Your task to perform on an android device: turn off location Image 0: 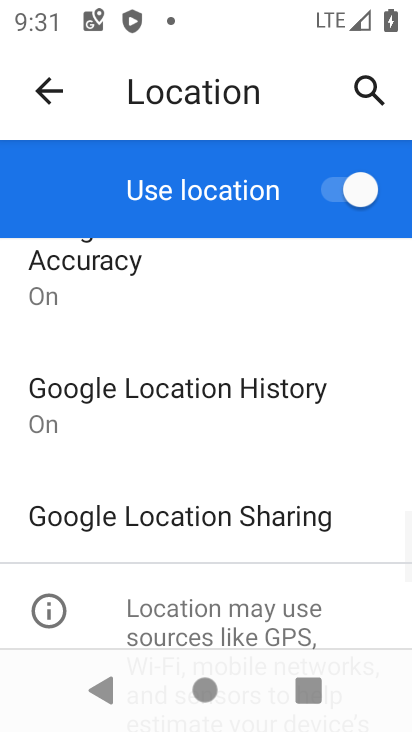
Step 0: press home button
Your task to perform on an android device: turn off location Image 1: 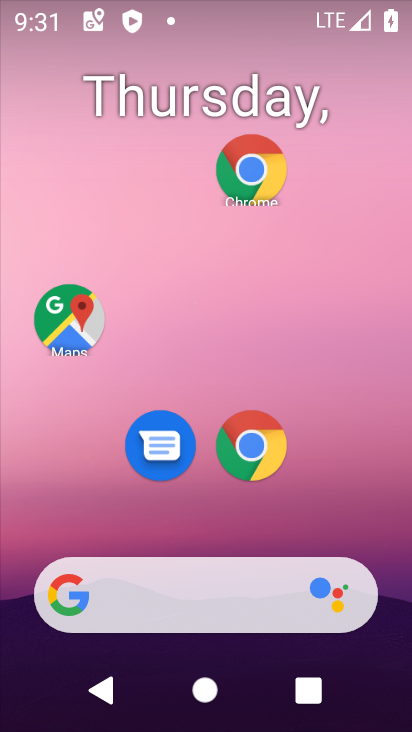
Step 1: drag from (169, 530) to (101, 66)
Your task to perform on an android device: turn off location Image 2: 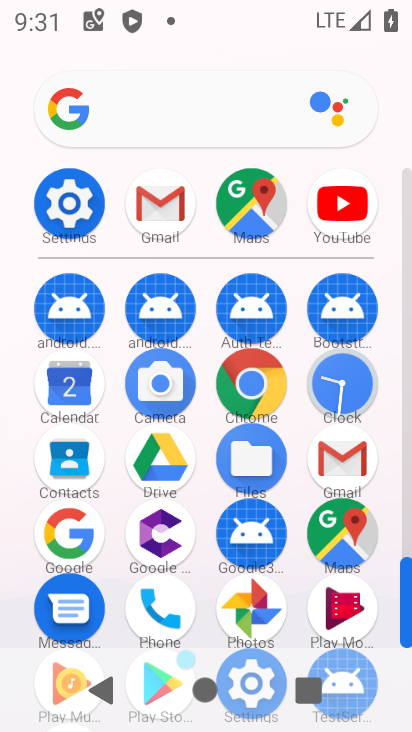
Step 2: click (81, 198)
Your task to perform on an android device: turn off location Image 3: 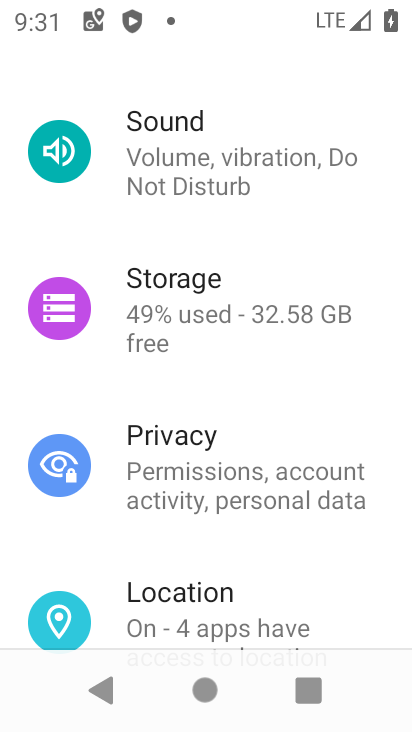
Step 3: click (199, 590)
Your task to perform on an android device: turn off location Image 4: 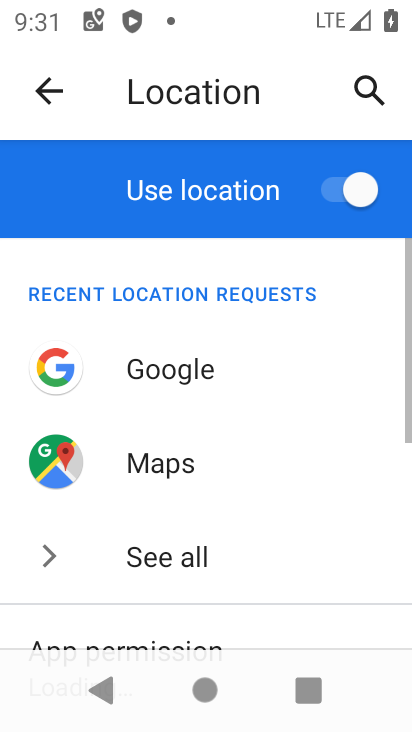
Step 4: drag from (194, 582) to (140, 114)
Your task to perform on an android device: turn off location Image 5: 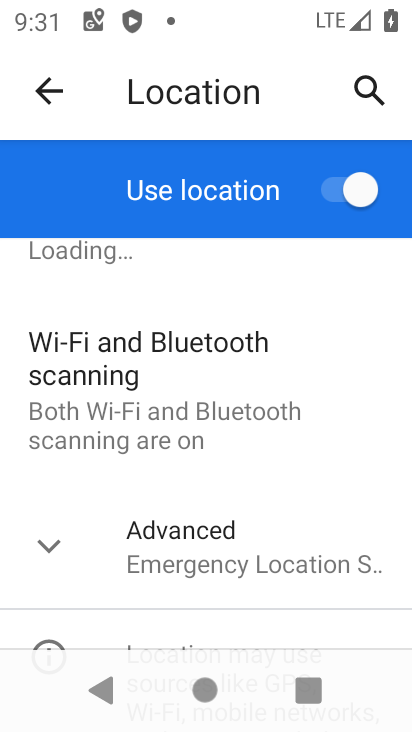
Step 5: click (362, 195)
Your task to perform on an android device: turn off location Image 6: 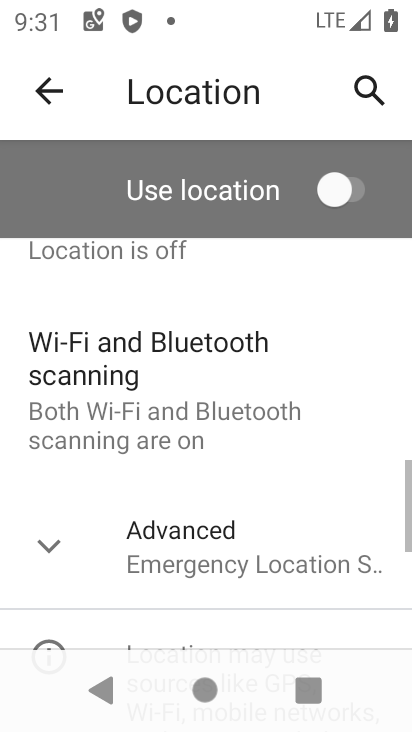
Step 6: task complete